Your task to perform on an android device: Open the calendar app, open the side menu, and click the "Day" option Image 0: 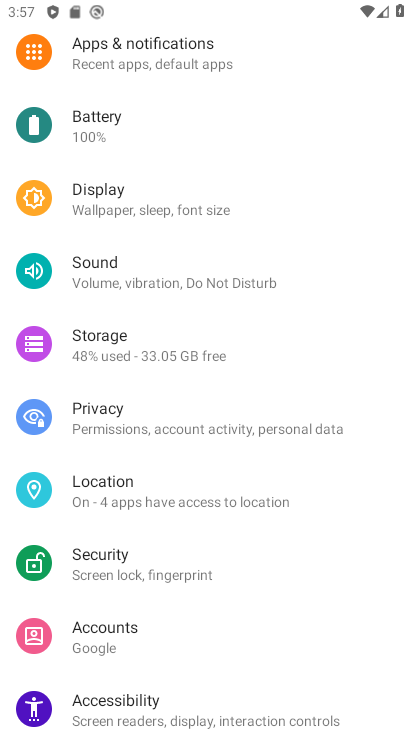
Step 0: press back button
Your task to perform on an android device: Open the calendar app, open the side menu, and click the "Day" option Image 1: 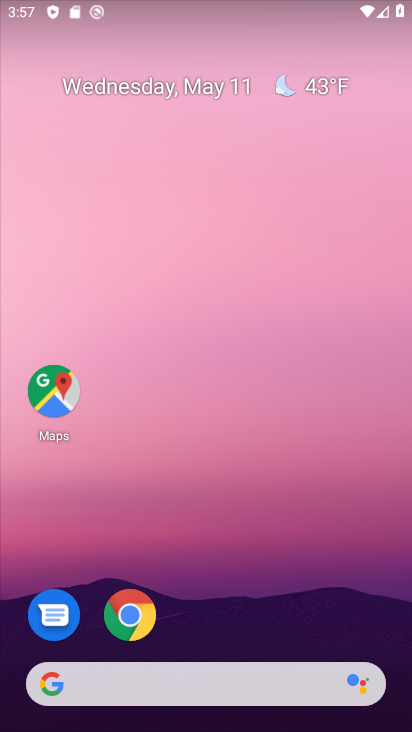
Step 1: drag from (243, 560) to (196, 0)
Your task to perform on an android device: Open the calendar app, open the side menu, and click the "Day" option Image 2: 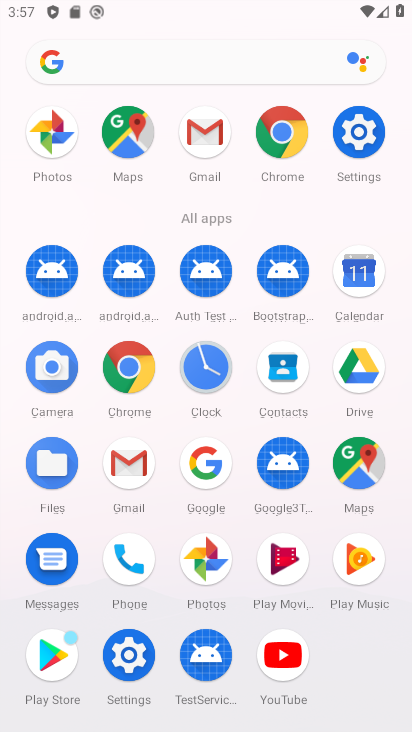
Step 2: drag from (8, 497) to (13, 211)
Your task to perform on an android device: Open the calendar app, open the side menu, and click the "Day" option Image 3: 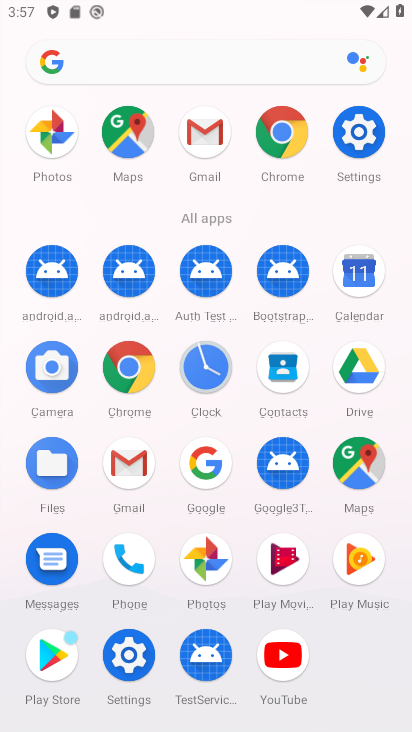
Step 3: click (357, 266)
Your task to perform on an android device: Open the calendar app, open the side menu, and click the "Day" option Image 4: 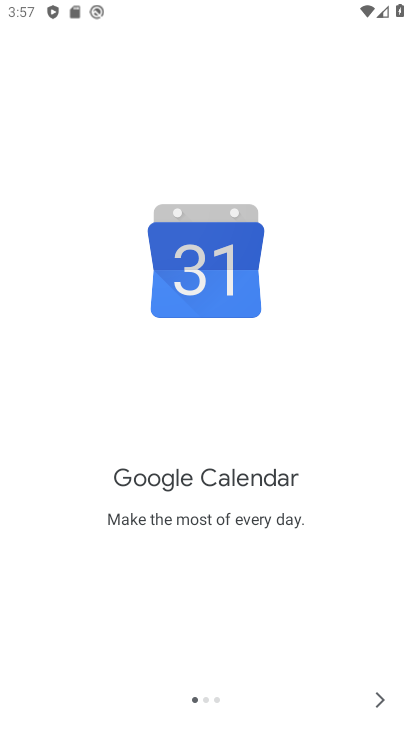
Step 4: click (383, 681)
Your task to perform on an android device: Open the calendar app, open the side menu, and click the "Day" option Image 5: 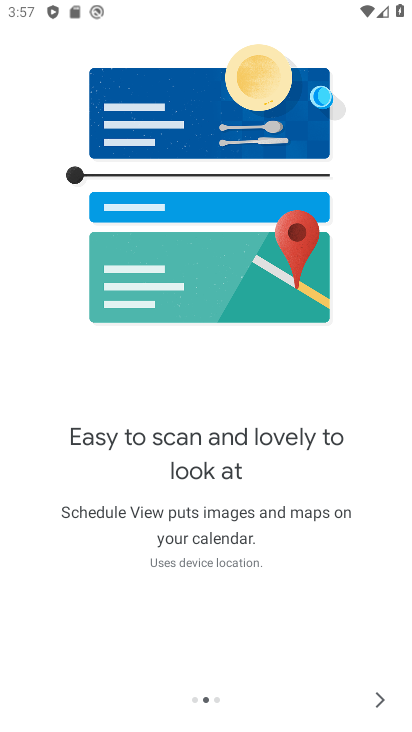
Step 5: click (381, 691)
Your task to perform on an android device: Open the calendar app, open the side menu, and click the "Day" option Image 6: 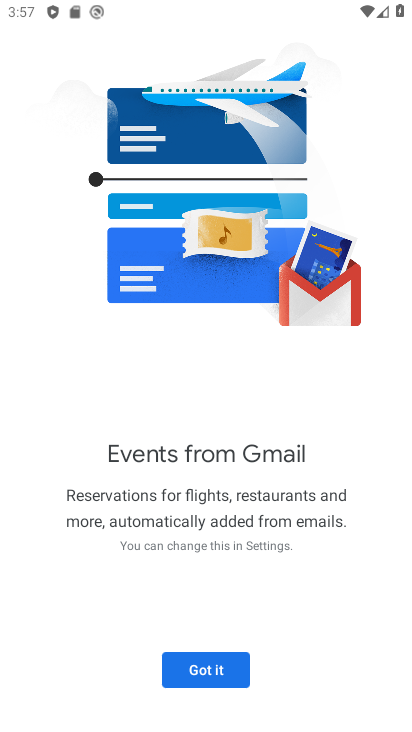
Step 6: click (224, 672)
Your task to perform on an android device: Open the calendar app, open the side menu, and click the "Day" option Image 7: 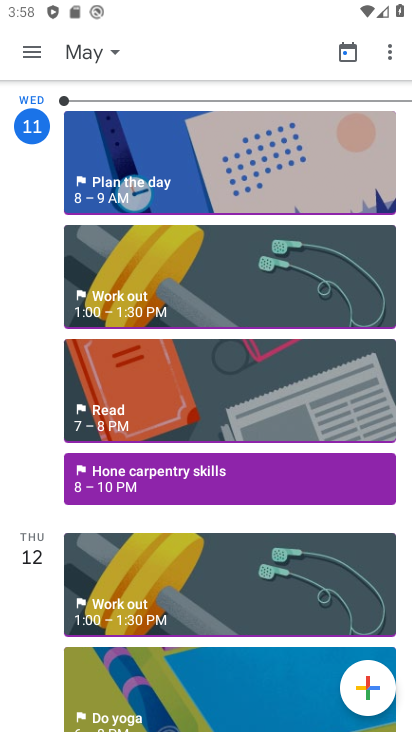
Step 7: click (39, 55)
Your task to perform on an android device: Open the calendar app, open the side menu, and click the "Day" option Image 8: 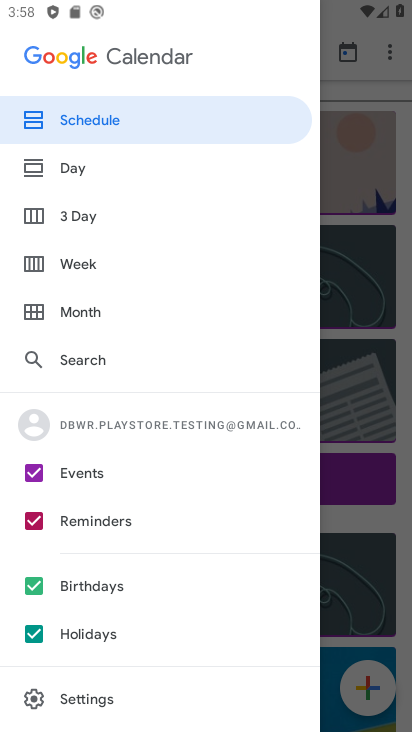
Step 8: click (92, 169)
Your task to perform on an android device: Open the calendar app, open the side menu, and click the "Day" option Image 9: 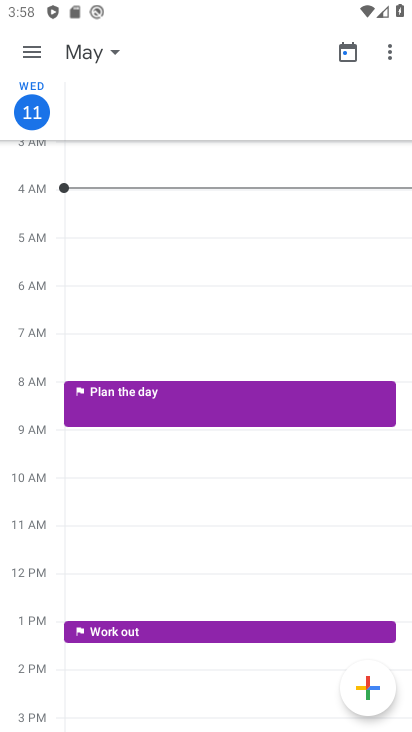
Step 9: task complete